Your task to perform on an android device: Open battery settings Image 0: 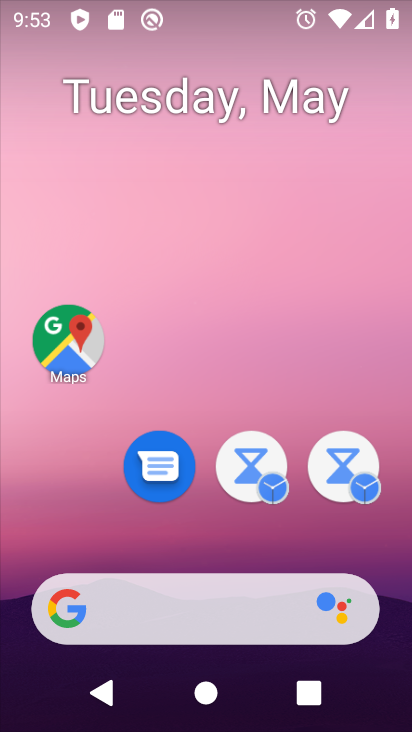
Step 0: click (175, 163)
Your task to perform on an android device: Open battery settings Image 1: 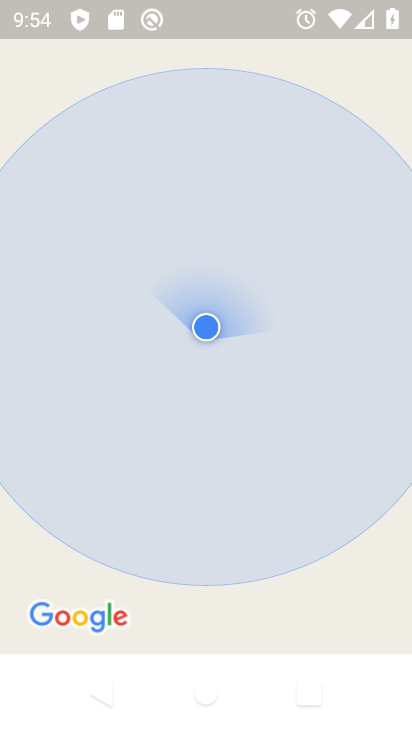
Step 1: press back button
Your task to perform on an android device: Open battery settings Image 2: 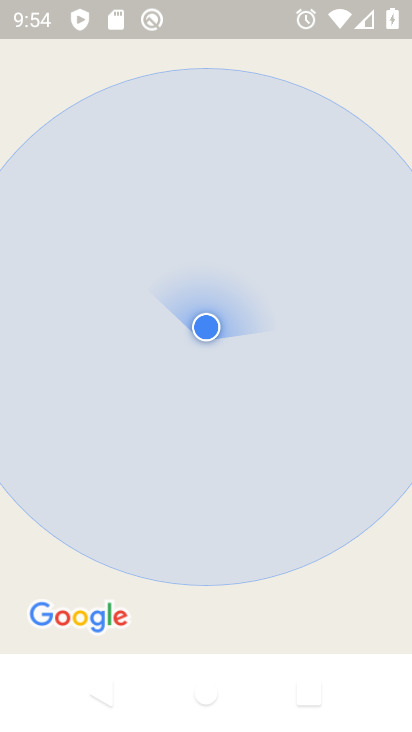
Step 2: press back button
Your task to perform on an android device: Open battery settings Image 3: 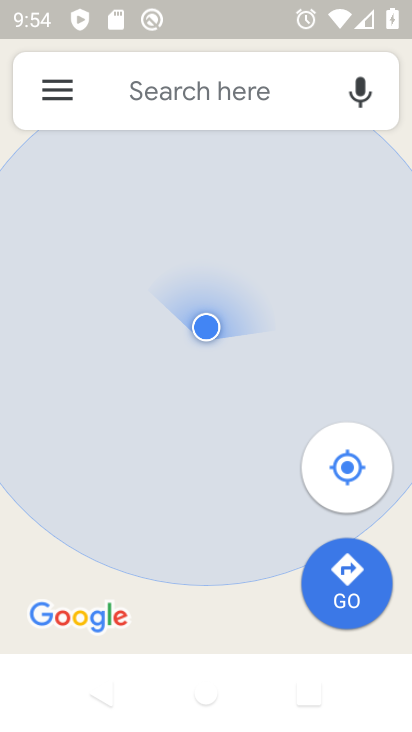
Step 3: press back button
Your task to perform on an android device: Open battery settings Image 4: 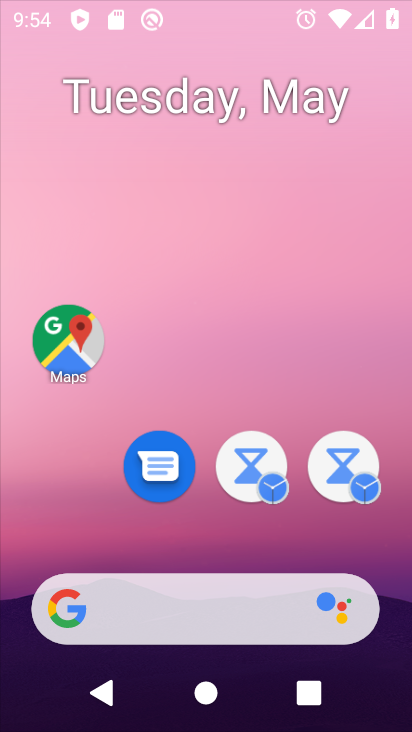
Step 4: press back button
Your task to perform on an android device: Open battery settings Image 5: 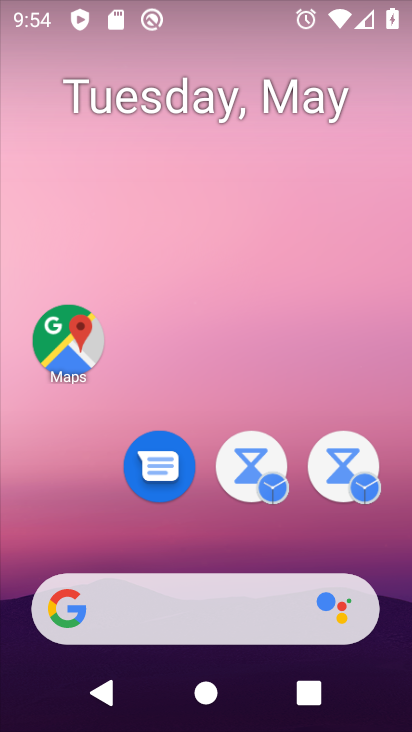
Step 5: press home button
Your task to perform on an android device: Open battery settings Image 6: 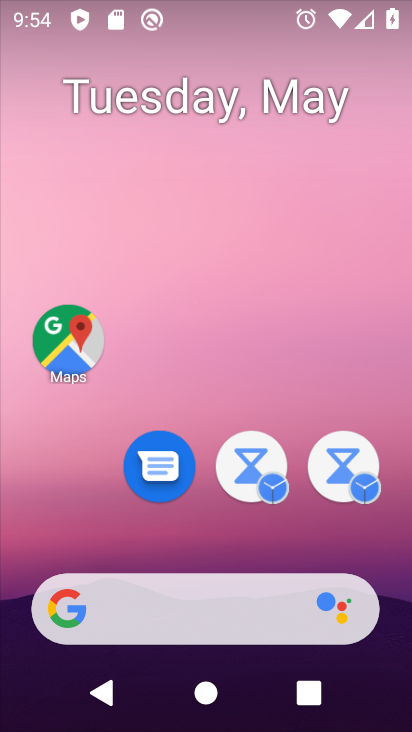
Step 6: drag from (356, 688) to (213, 34)
Your task to perform on an android device: Open battery settings Image 7: 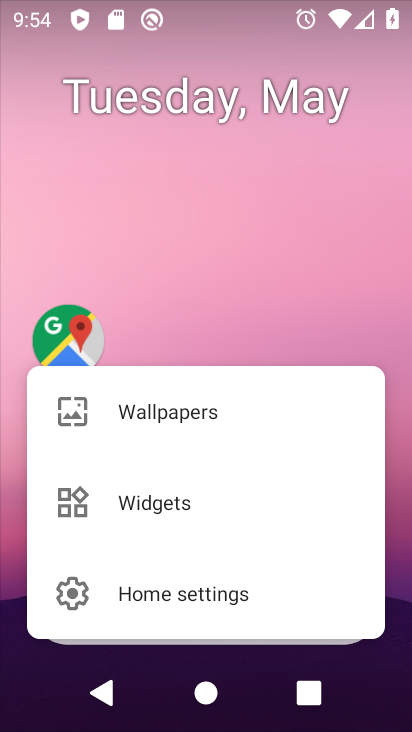
Step 7: click (270, 225)
Your task to perform on an android device: Open battery settings Image 8: 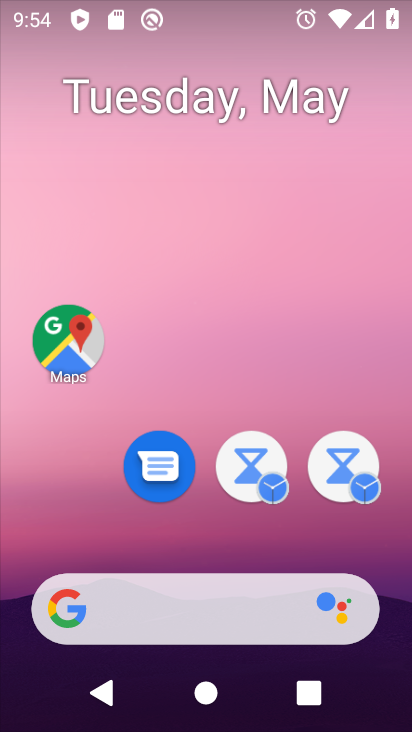
Step 8: click (269, 225)
Your task to perform on an android device: Open battery settings Image 9: 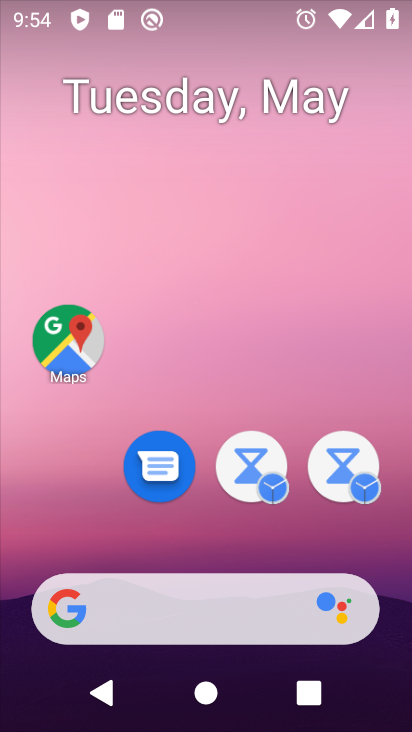
Step 9: click (269, 225)
Your task to perform on an android device: Open battery settings Image 10: 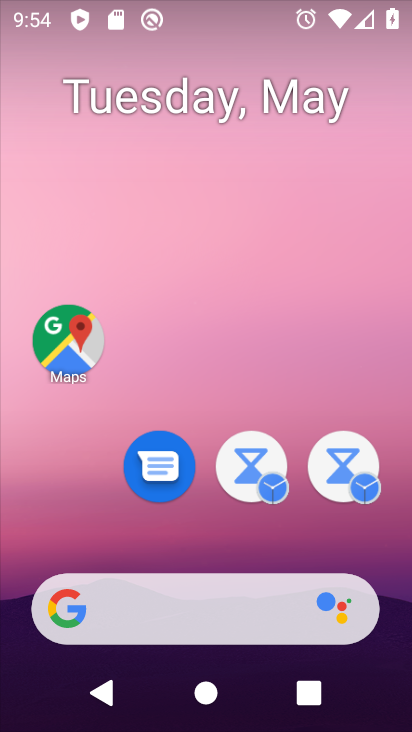
Step 10: drag from (356, 674) to (222, 23)
Your task to perform on an android device: Open battery settings Image 11: 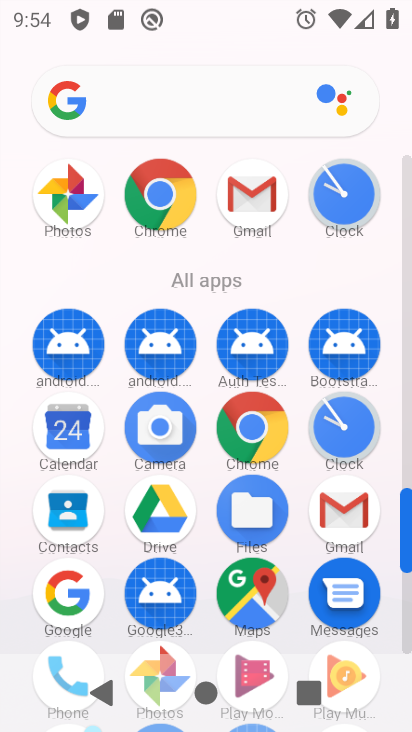
Step 11: drag from (282, 522) to (264, 174)
Your task to perform on an android device: Open battery settings Image 12: 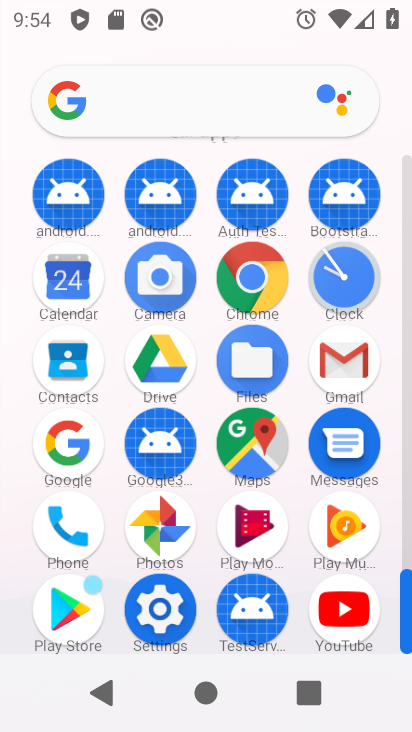
Step 12: drag from (210, 570) to (205, 306)
Your task to perform on an android device: Open battery settings Image 13: 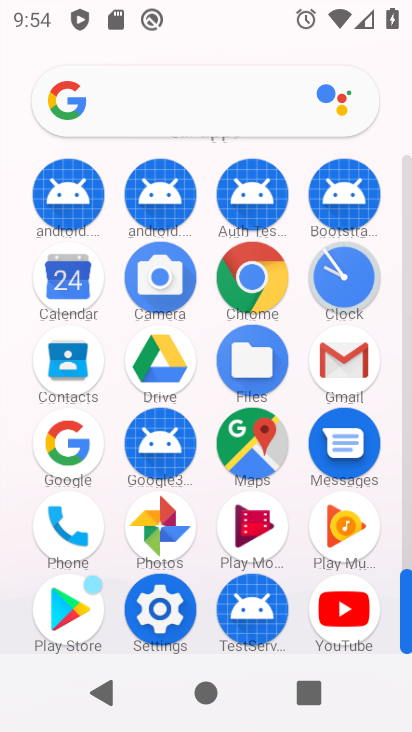
Step 13: click (167, 598)
Your task to perform on an android device: Open battery settings Image 14: 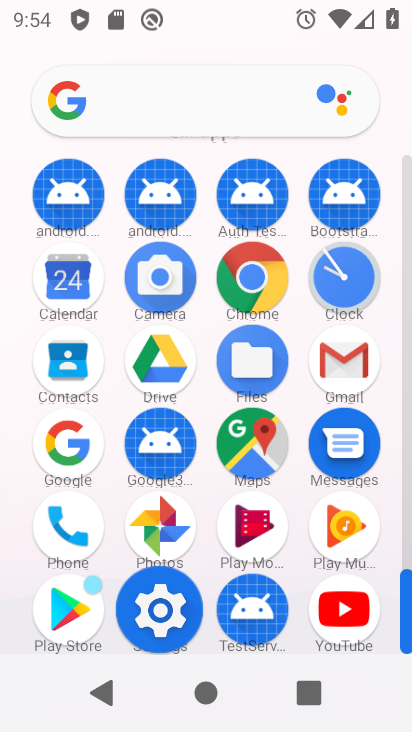
Step 14: click (167, 598)
Your task to perform on an android device: Open battery settings Image 15: 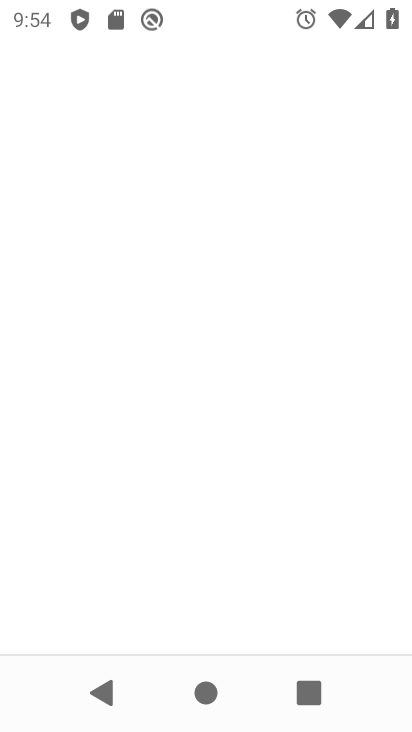
Step 15: click (166, 615)
Your task to perform on an android device: Open battery settings Image 16: 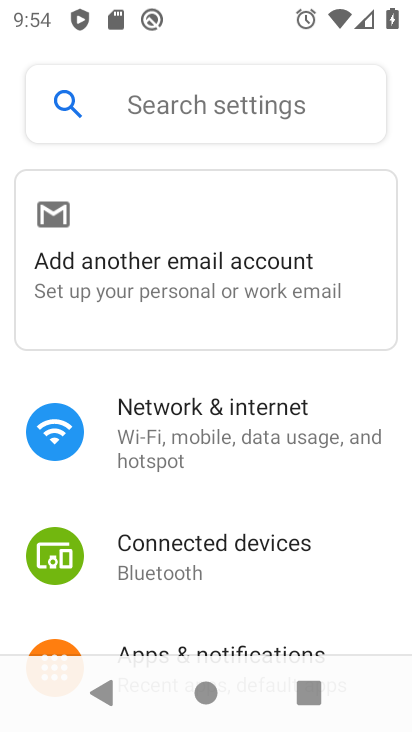
Step 16: drag from (249, 515) to (242, 159)
Your task to perform on an android device: Open battery settings Image 17: 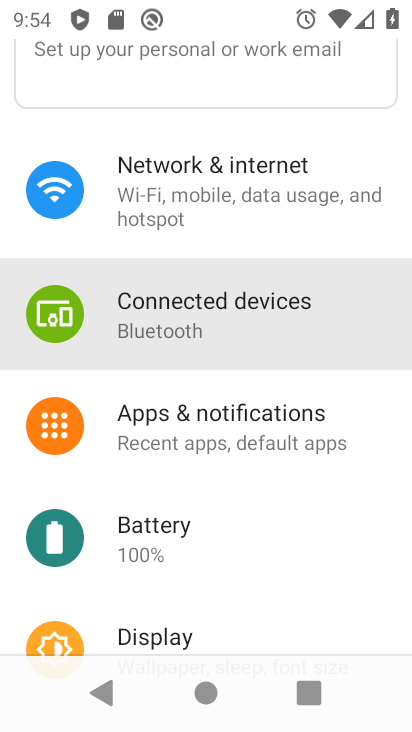
Step 17: drag from (242, 408) to (242, 99)
Your task to perform on an android device: Open battery settings Image 18: 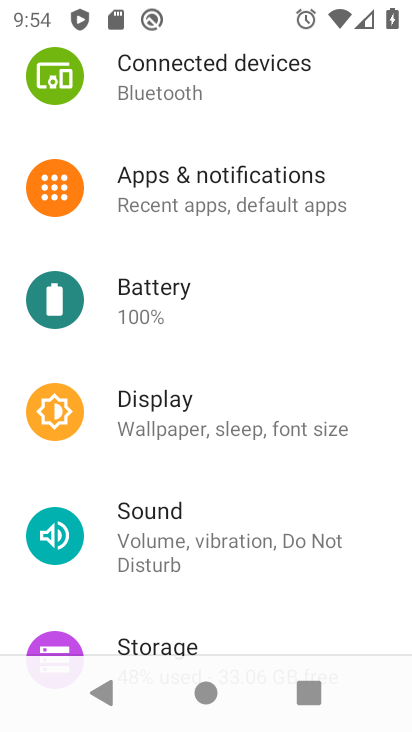
Step 18: drag from (243, 433) to (240, 177)
Your task to perform on an android device: Open battery settings Image 19: 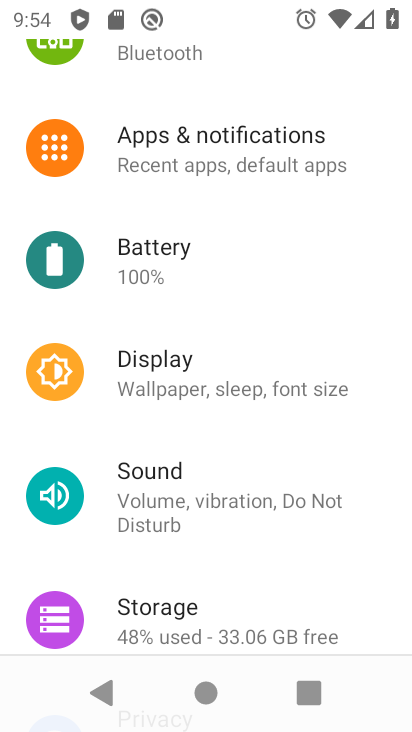
Step 19: click (152, 245)
Your task to perform on an android device: Open battery settings Image 20: 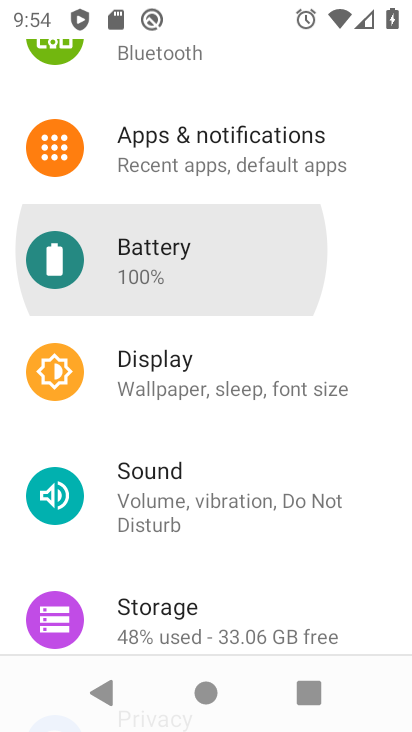
Step 20: click (151, 252)
Your task to perform on an android device: Open battery settings Image 21: 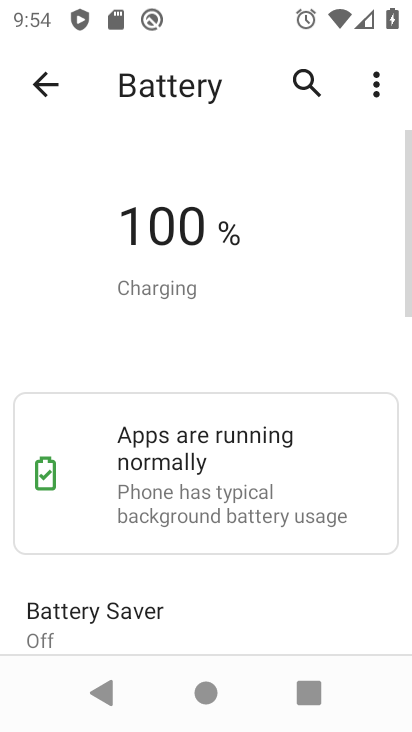
Step 21: task complete